Your task to perform on an android device: Go to Android settings Image 0: 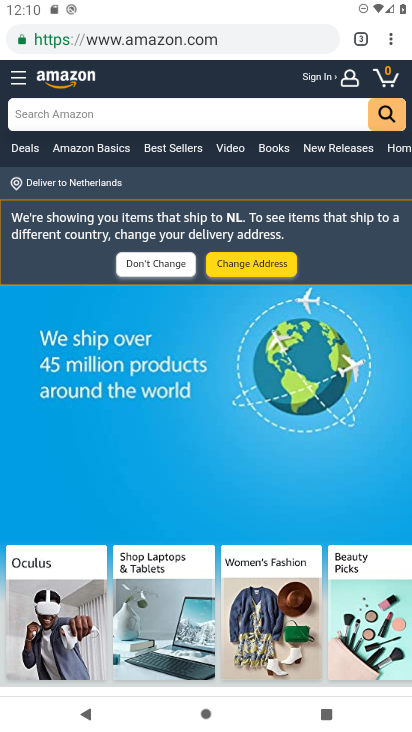
Step 0: press home button
Your task to perform on an android device: Go to Android settings Image 1: 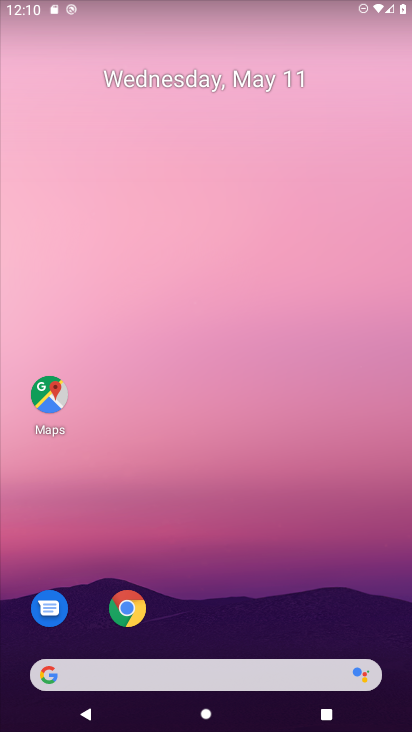
Step 1: drag from (266, 562) to (243, 106)
Your task to perform on an android device: Go to Android settings Image 2: 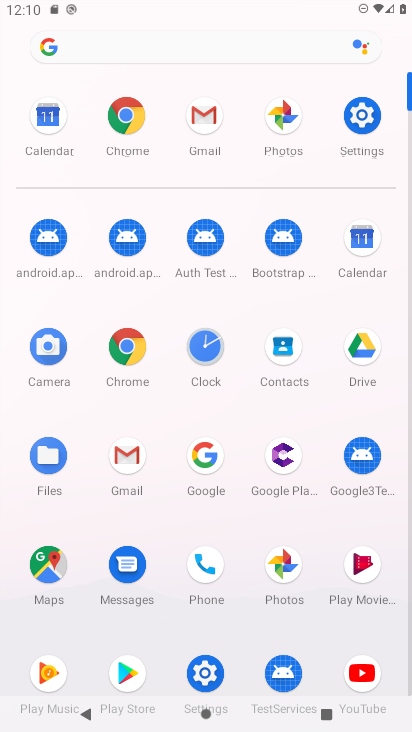
Step 2: click (363, 120)
Your task to perform on an android device: Go to Android settings Image 3: 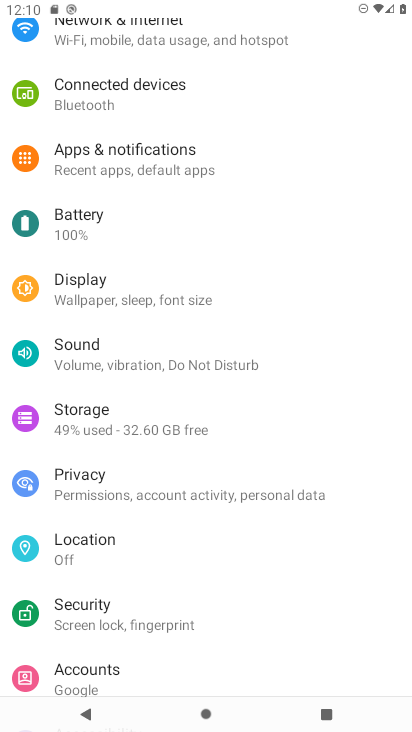
Step 3: drag from (221, 602) to (222, 166)
Your task to perform on an android device: Go to Android settings Image 4: 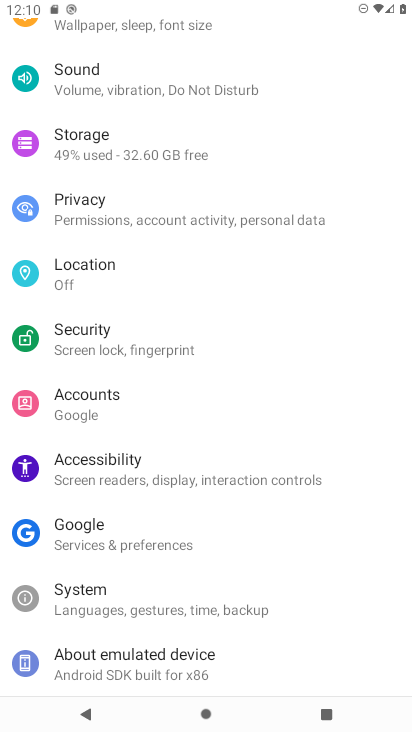
Step 4: click (183, 652)
Your task to perform on an android device: Go to Android settings Image 5: 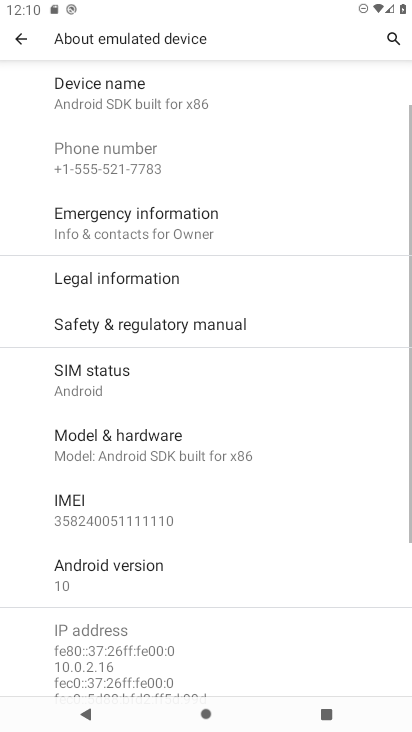
Step 5: task complete